Your task to perform on an android device: manage bookmarks in the chrome app Image 0: 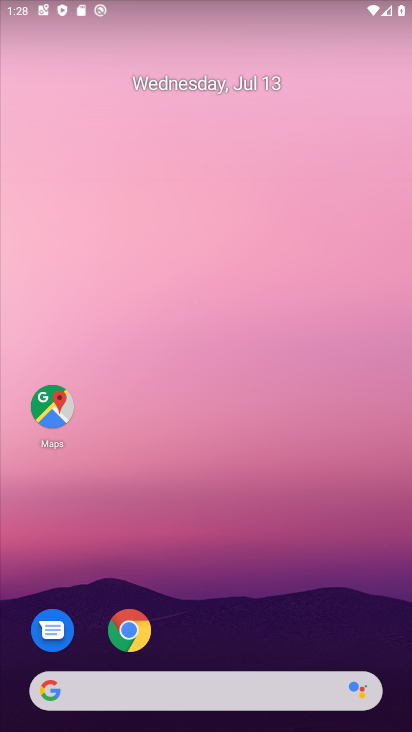
Step 0: drag from (342, 611) to (337, 97)
Your task to perform on an android device: manage bookmarks in the chrome app Image 1: 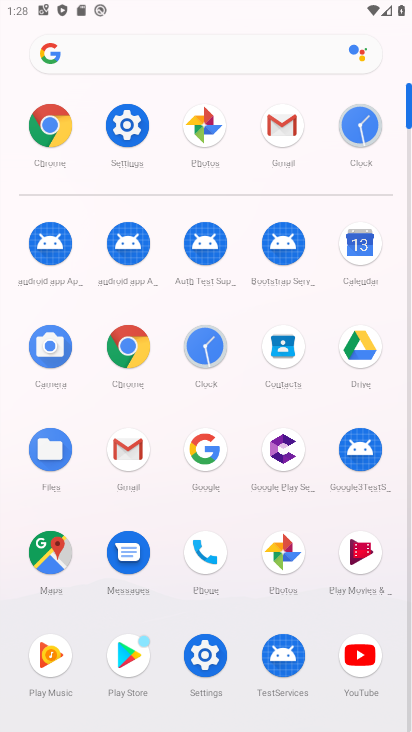
Step 1: click (130, 343)
Your task to perform on an android device: manage bookmarks in the chrome app Image 2: 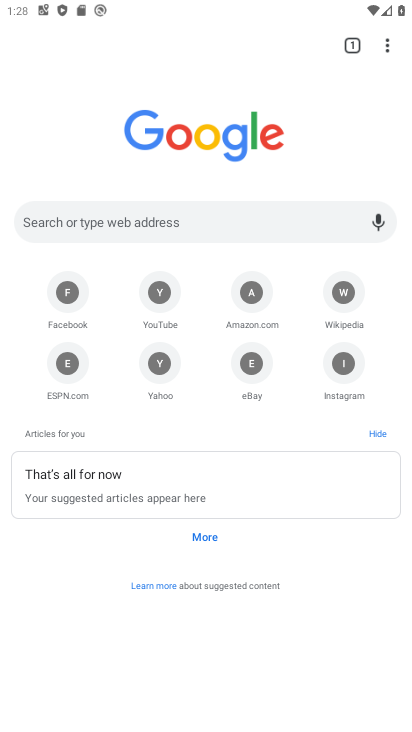
Step 2: click (386, 55)
Your task to perform on an android device: manage bookmarks in the chrome app Image 3: 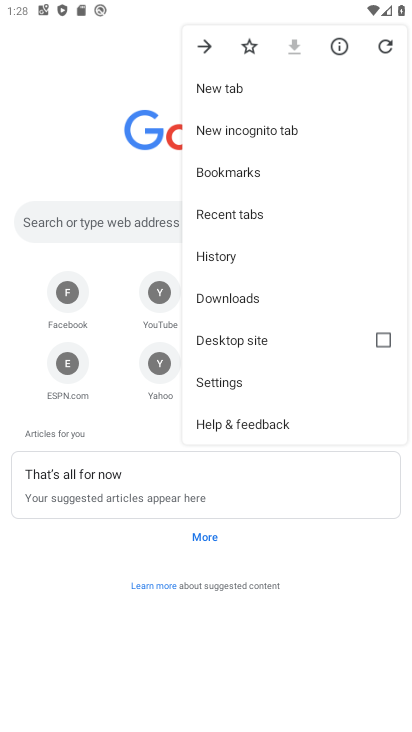
Step 3: click (267, 183)
Your task to perform on an android device: manage bookmarks in the chrome app Image 4: 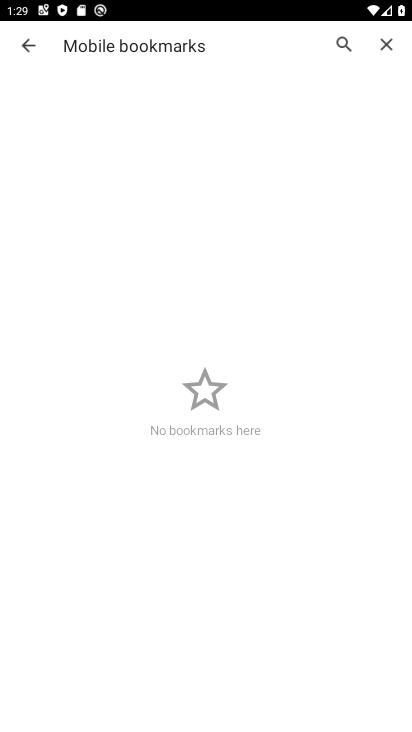
Step 4: task complete